Your task to perform on an android device: toggle pop-ups in chrome Image 0: 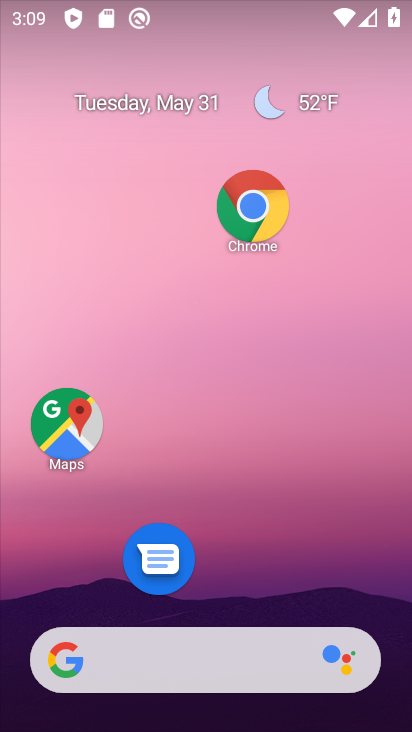
Step 0: click (241, 226)
Your task to perform on an android device: toggle pop-ups in chrome Image 1: 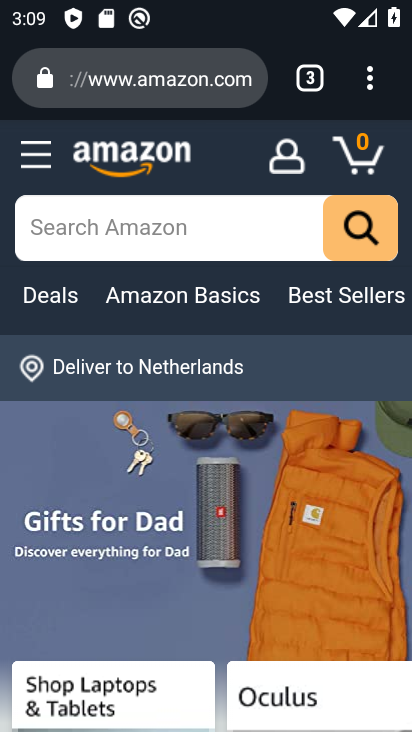
Step 1: drag from (366, 82) to (90, 607)
Your task to perform on an android device: toggle pop-ups in chrome Image 2: 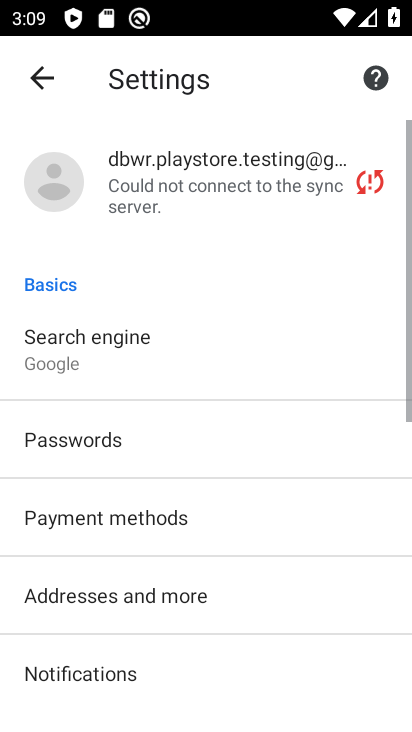
Step 2: drag from (166, 628) to (188, 315)
Your task to perform on an android device: toggle pop-ups in chrome Image 3: 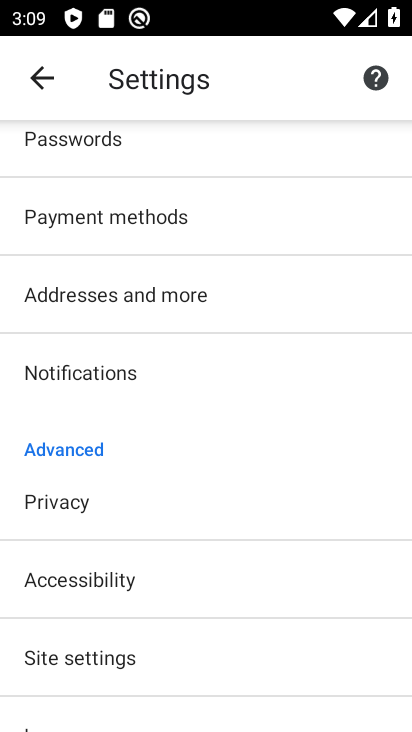
Step 3: drag from (142, 654) to (169, 439)
Your task to perform on an android device: toggle pop-ups in chrome Image 4: 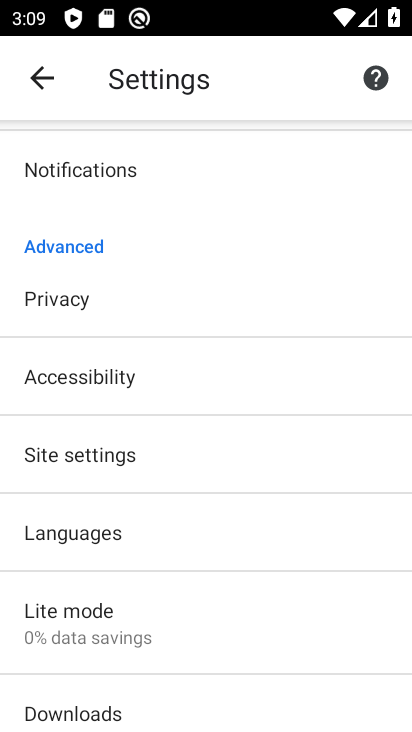
Step 4: click (118, 467)
Your task to perform on an android device: toggle pop-ups in chrome Image 5: 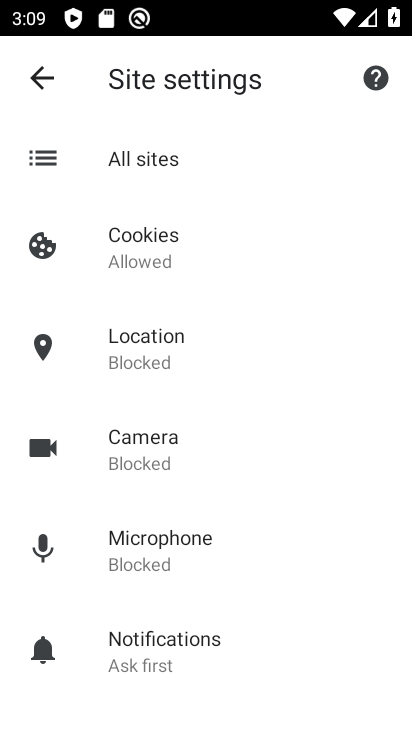
Step 5: drag from (198, 622) to (198, 365)
Your task to perform on an android device: toggle pop-ups in chrome Image 6: 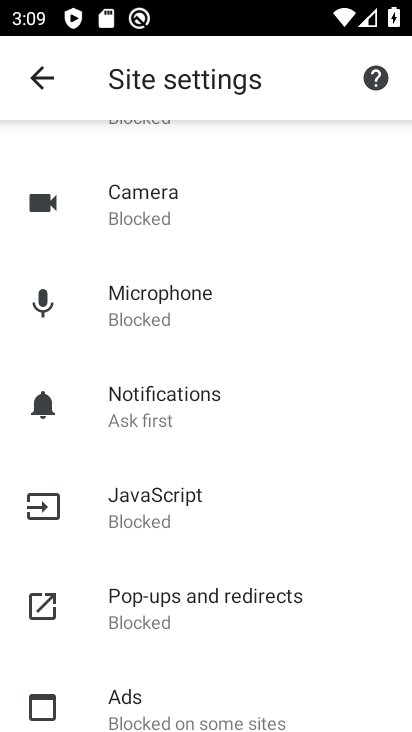
Step 6: click (168, 602)
Your task to perform on an android device: toggle pop-ups in chrome Image 7: 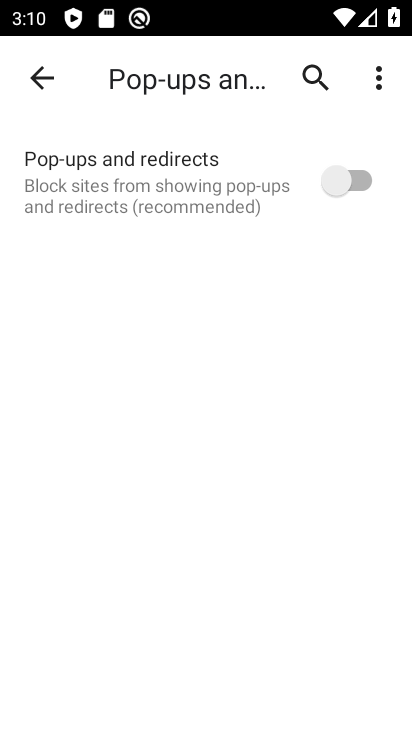
Step 7: click (362, 168)
Your task to perform on an android device: toggle pop-ups in chrome Image 8: 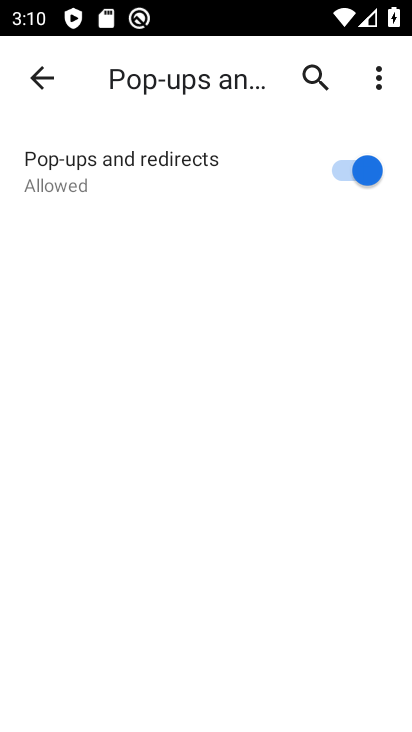
Step 8: task complete